Your task to perform on an android device: turn on showing notifications on the lock screen Image 0: 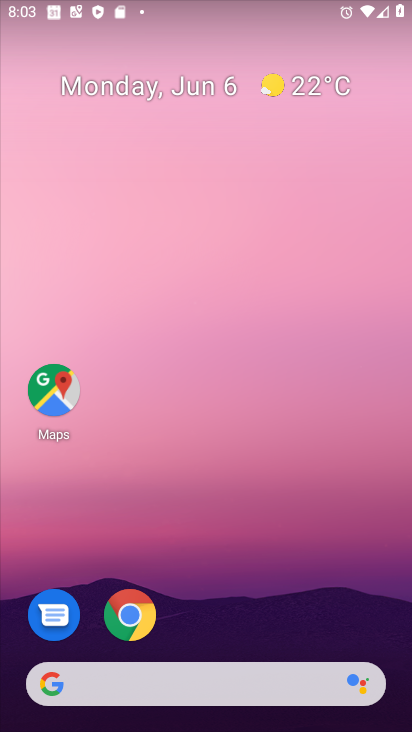
Step 0: drag from (396, 693) to (356, 140)
Your task to perform on an android device: turn on showing notifications on the lock screen Image 1: 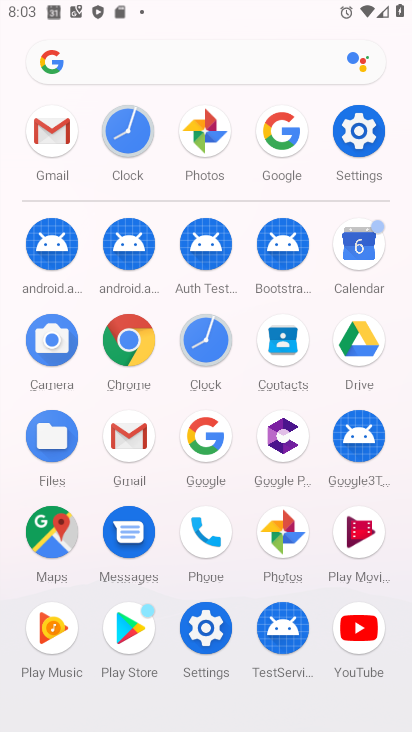
Step 1: click (372, 112)
Your task to perform on an android device: turn on showing notifications on the lock screen Image 2: 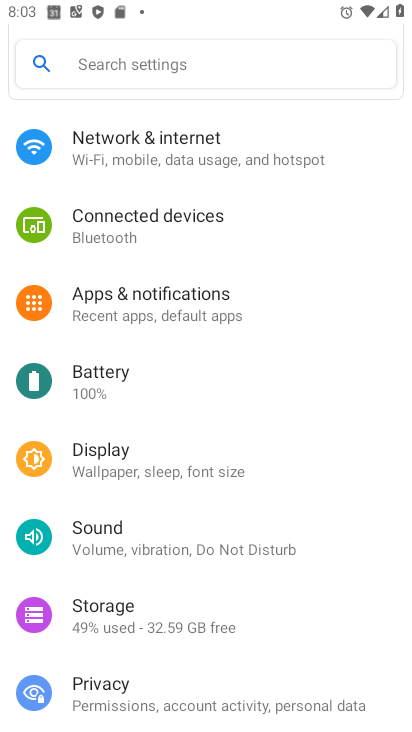
Step 2: click (145, 300)
Your task to perform on an android device: turn on showing notifications on the lock screen Image 3: 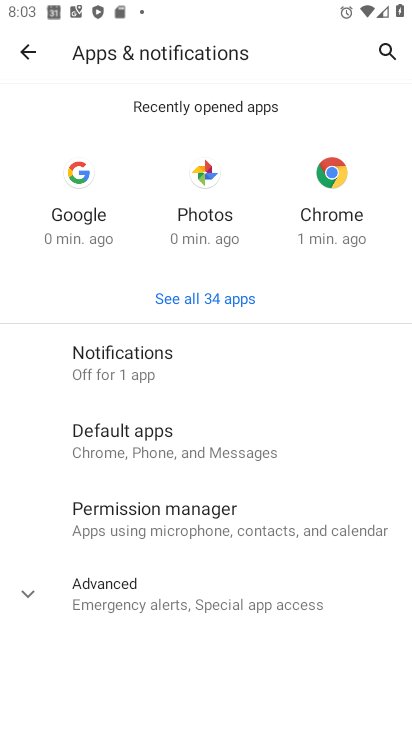
Step 3: click (145, 300)
Your task to perform on an android device: turn on showing notifications on the lock screen Image 4: 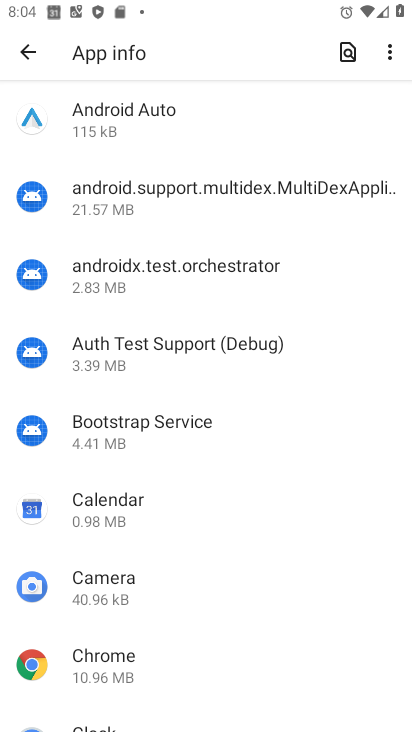
Step 4: click (28, 37)
Your task to perform on an android device: turn on showing notifications on the lock screen Image 5: 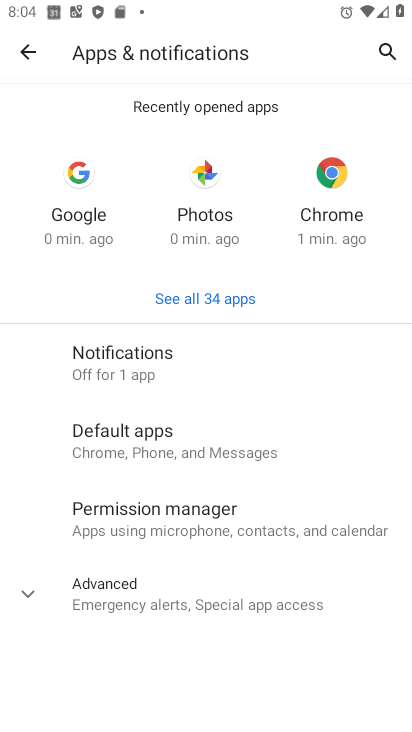
Step 5: click (145, 356)
Your task to perform on an android device: turn on showing notifications on the lock screen Image 6: 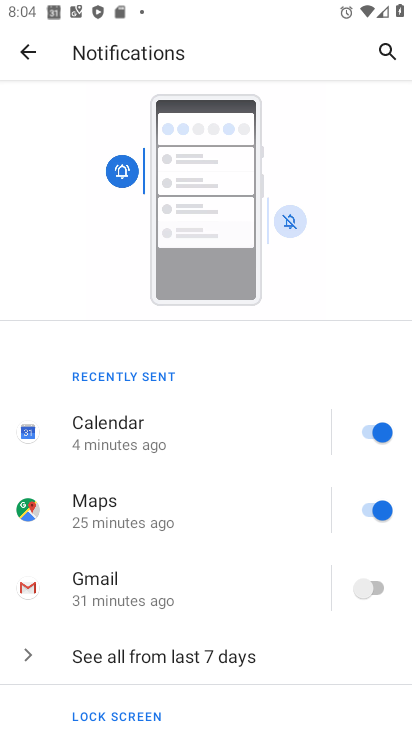
Step 6: drag from (255, 686) to (239, 337)
Your task to perform on an android device: turn on showing notifications on the lock screen Image 7: 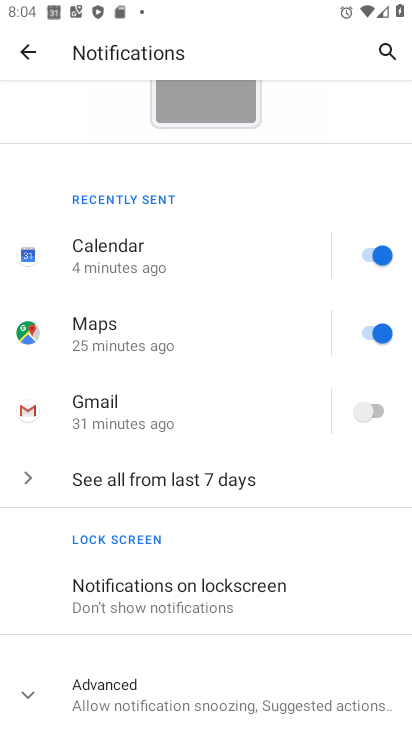
Step 7: click (148, 576)
Your task to perform on an android device: turn on showing notifications on the lock screen Image 8: 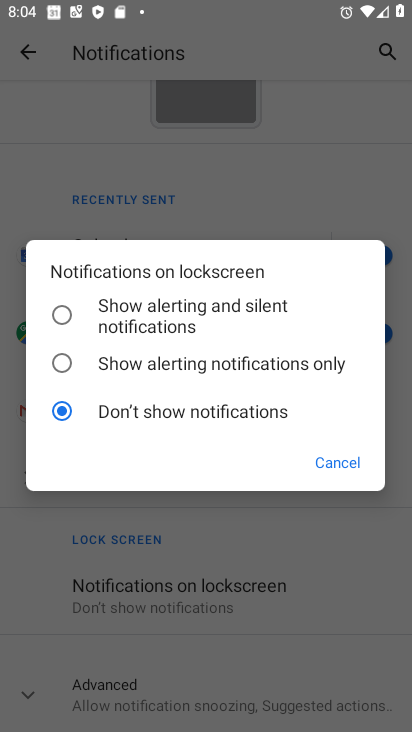
Step 8: click (63, 311)
Your task to perform on an android device: turn on showing notifications on the lock screen Image 9: 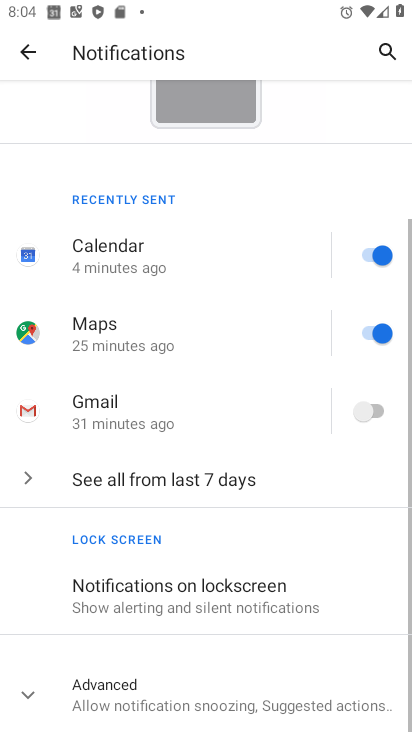
Step 9: task complete